Your task to perform on an android device: Open CNN.com Image 0: 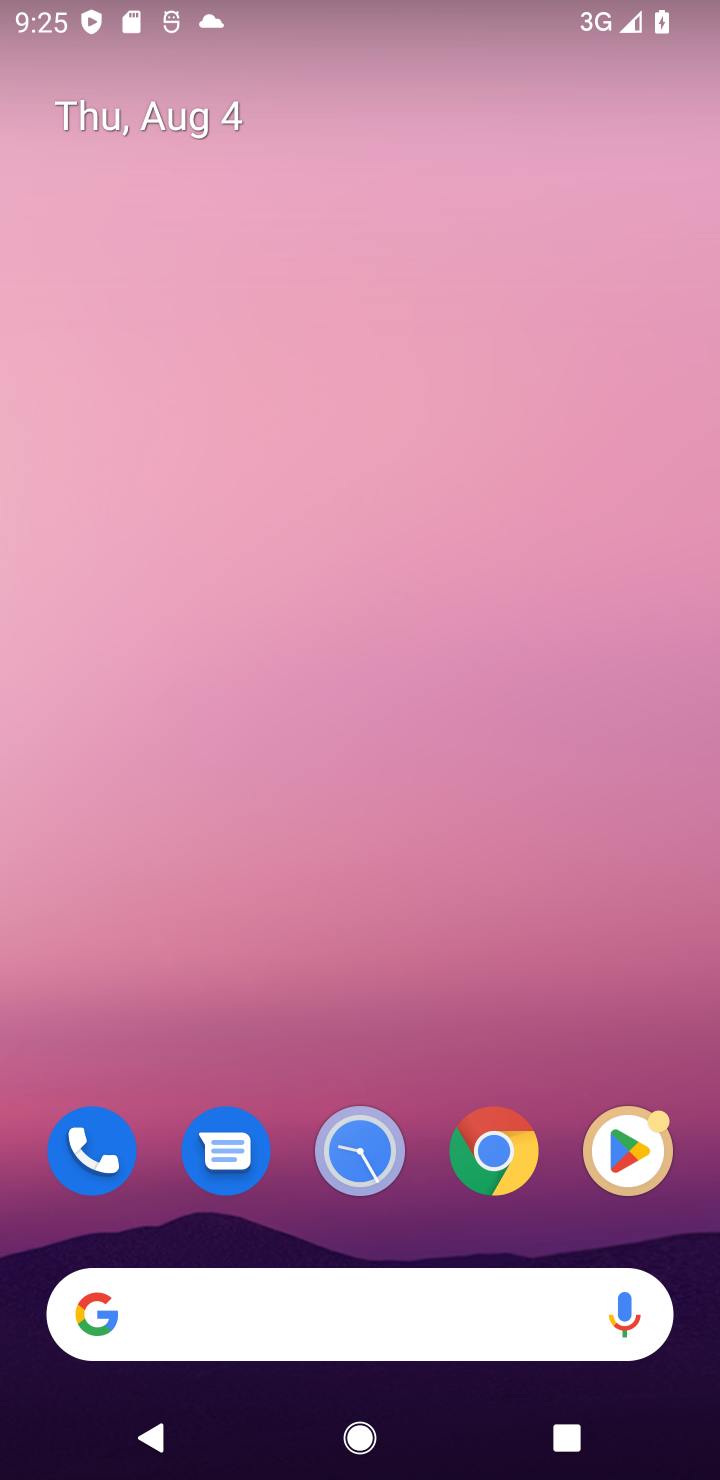
Step 0: click (516, 1173)
Your task to perform on an android device: Open CNN.com Image 1: 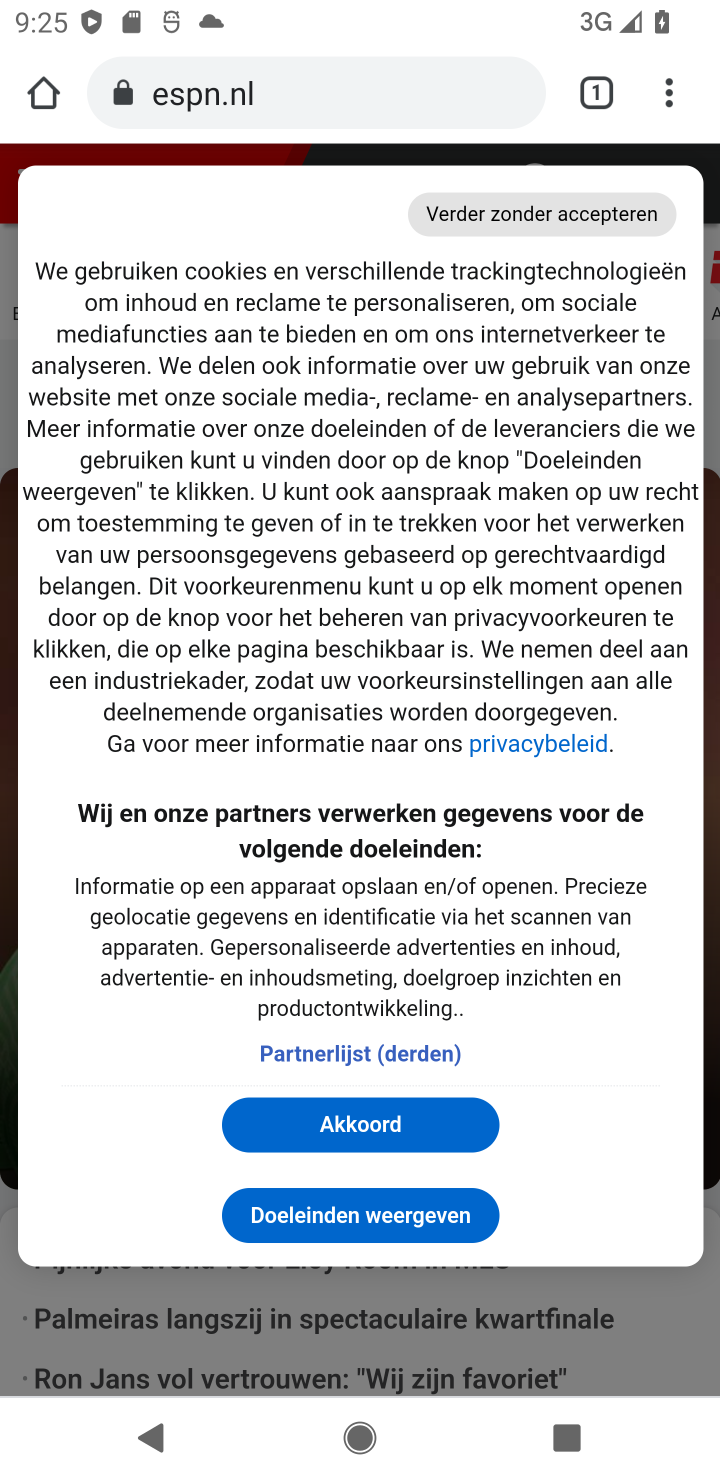
Step 1: click (325, 81)
Your task to perform on an android device: Open CNN.com Image 2: 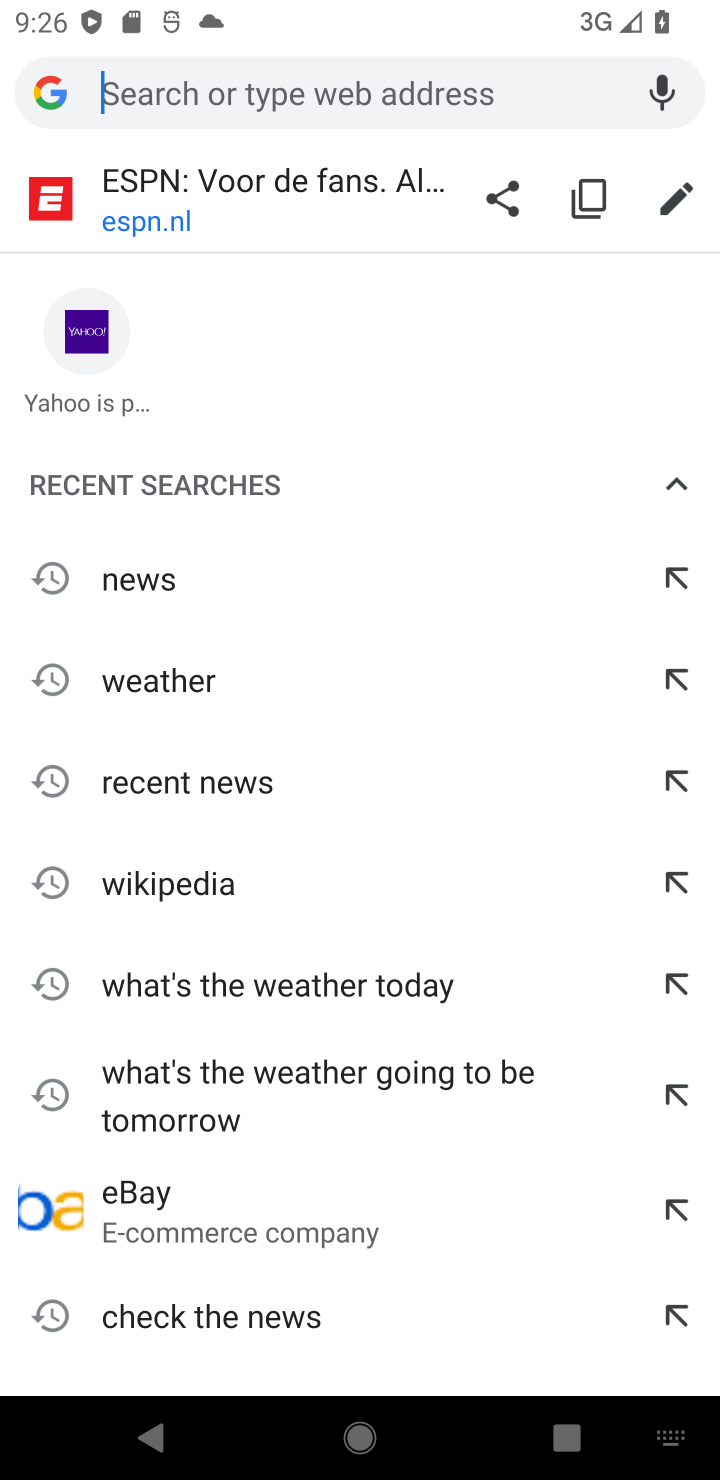
Step 2: type "cnn.com"
Your task to perform on an android device: Open CNN.com Image 3: 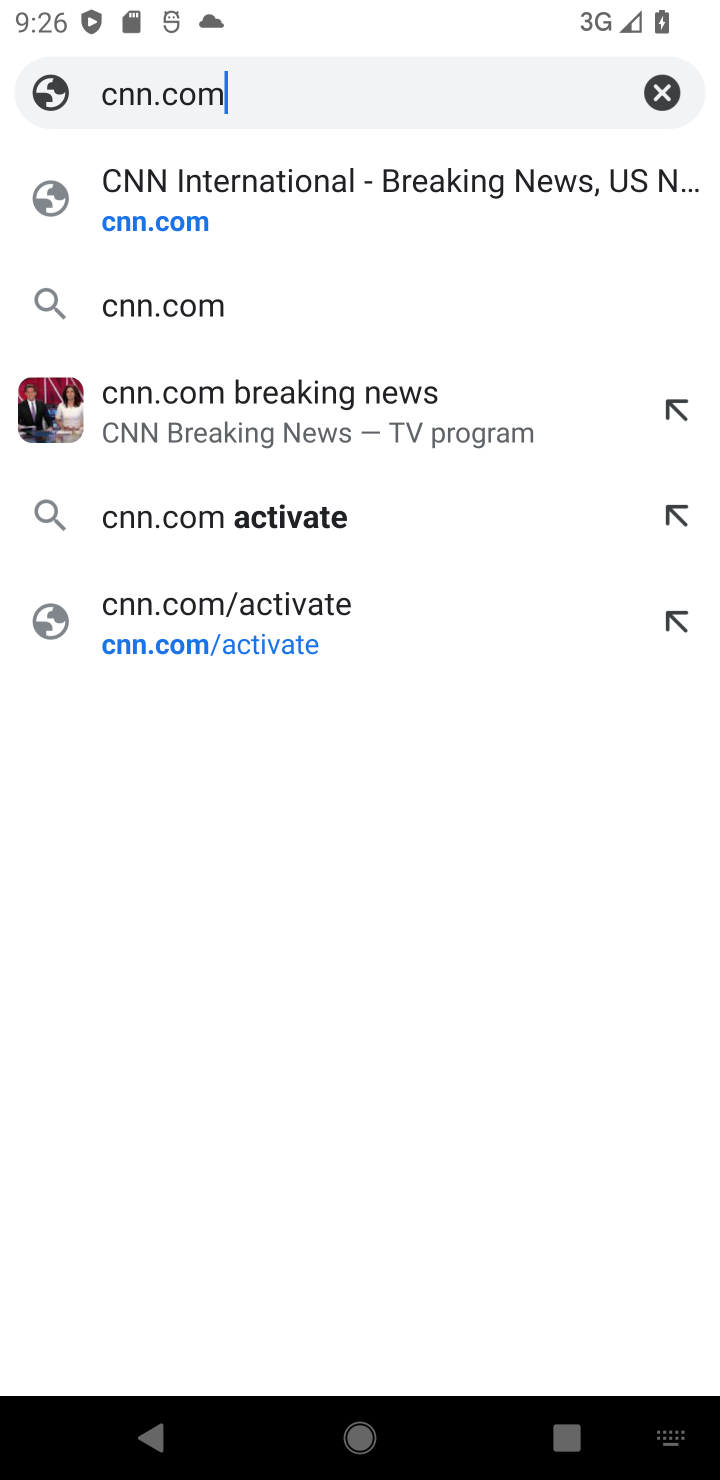
Step 3: click (302, 205)
Your task to perform on an android device: Open CNN.com Image 4: 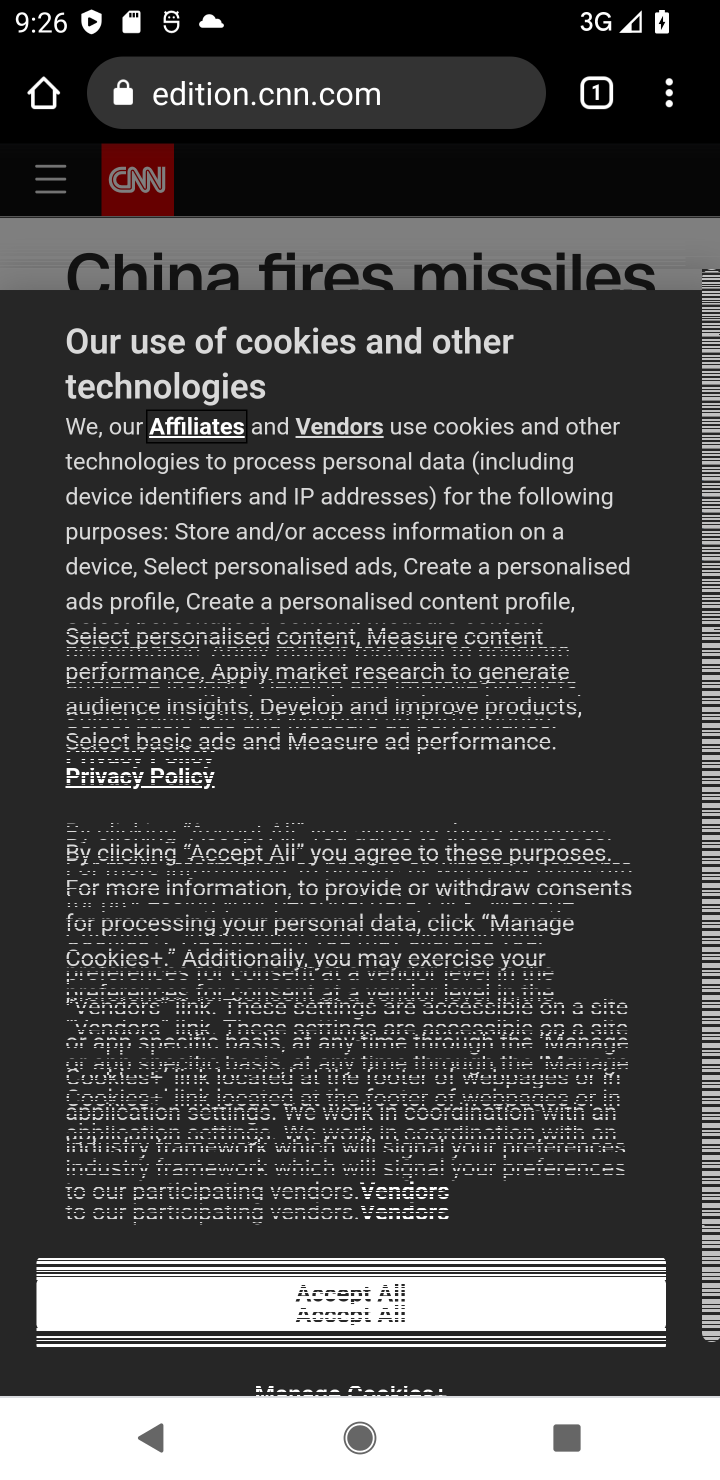
Step 4: task complete